Your task to perform on an android device: Search for pizza restaurants on Maps Image 0: 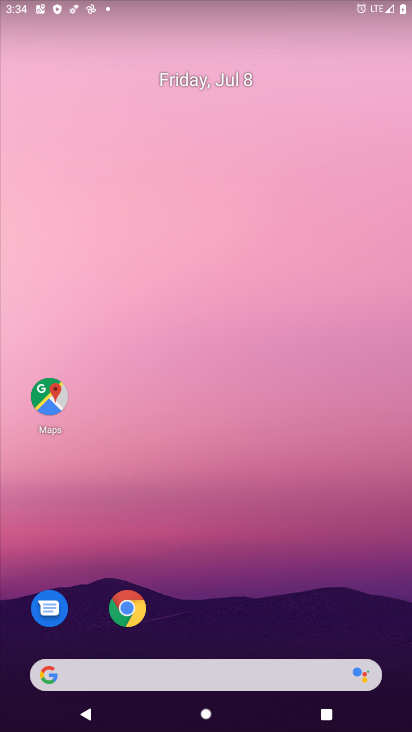
Step 0: drag from (295, 620) to (262, 36)
Your task to perform on an android device: Search for pizza restaurants on Maps Image 1: 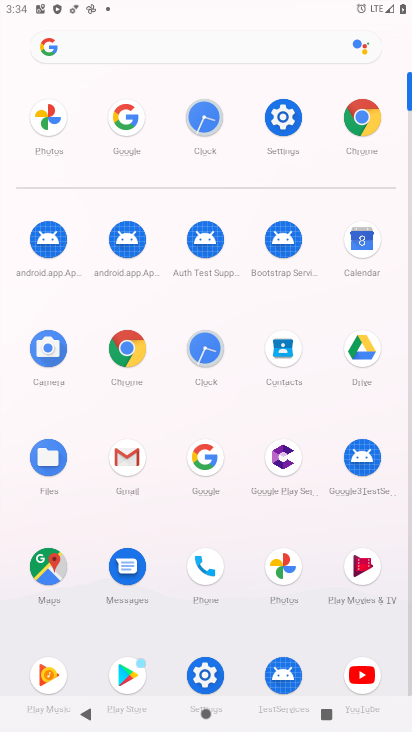
Step 1: click (34, 565)
Your task to perform on an android device: Search for pizza restaurants on Maps Image 2: 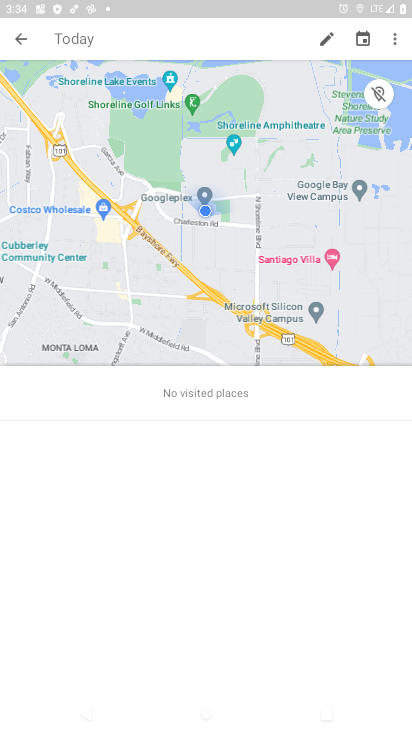
Step 2: press back button
Your task to perform on an android device: Search for pizza restaurants on Maps Image 3: 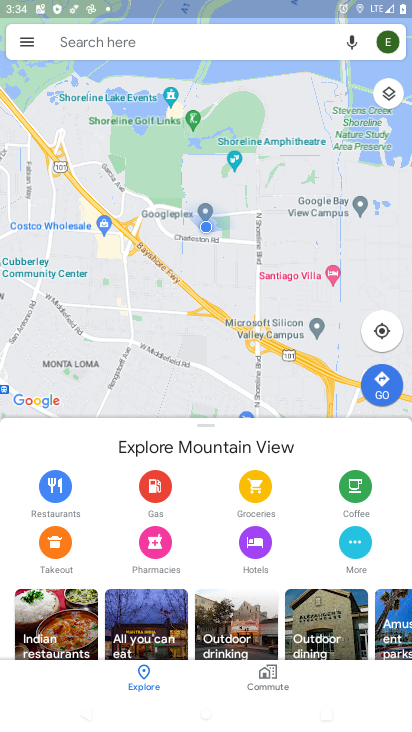
Step 3: click (76, 41)
Your task to perform on an android device: Search for pizza restaurants on Maps Image 4: 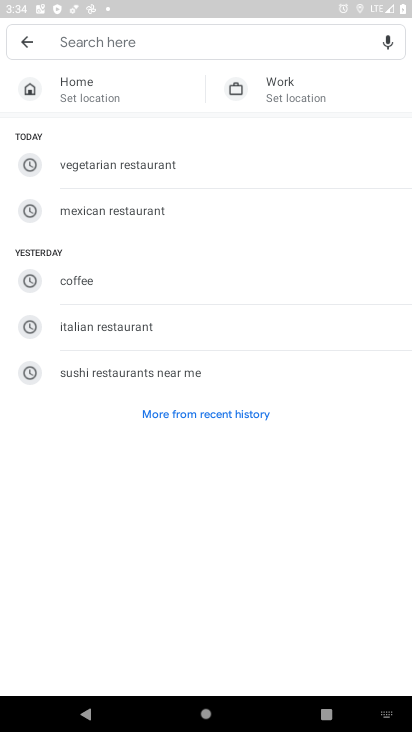
Step 4: type "pizza restaurant"
Your task to perform on an android device: Search for pizza restaurants on Maps Image 5: 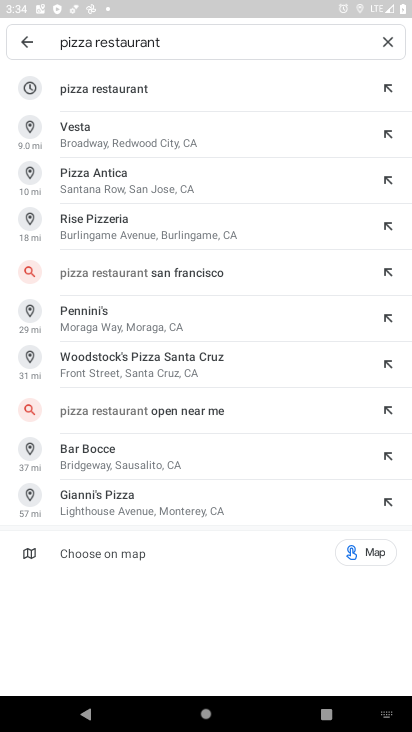
Step 5: click (343, 97)
Your task to perform on an android device: Search for pizza restaurants on Maps Image 6: 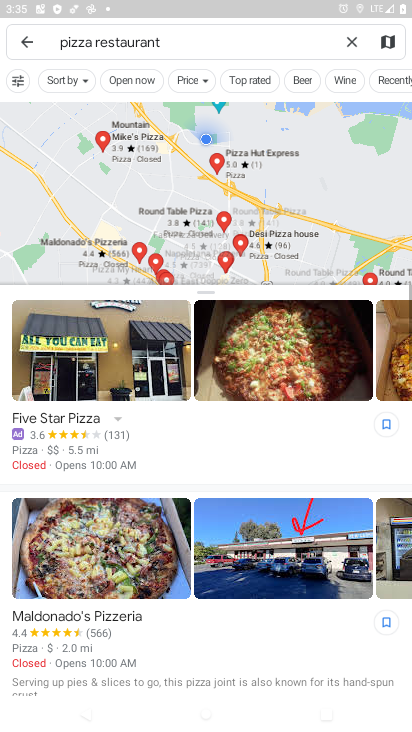
Step 6: task complete